Your task to perform on an android device: Check the price on the Dyson V11 Motorhead on Best Buy Image 0: 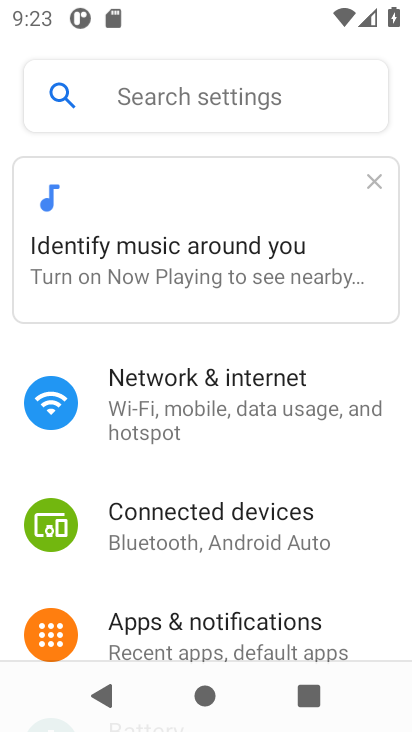
Step 0: click (377, 176)
Your task to perform on an android device: Check the price on the Dyson V11 Motorhead on Best Buy Image 1: 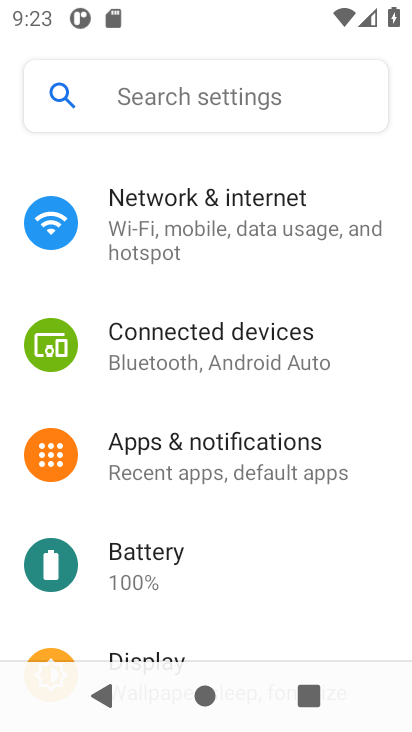
Step 1: click (245, 413)
Your task to perform on an android device: Check the price on the Dyson V11 Motorhead on Best Buy Image 2: 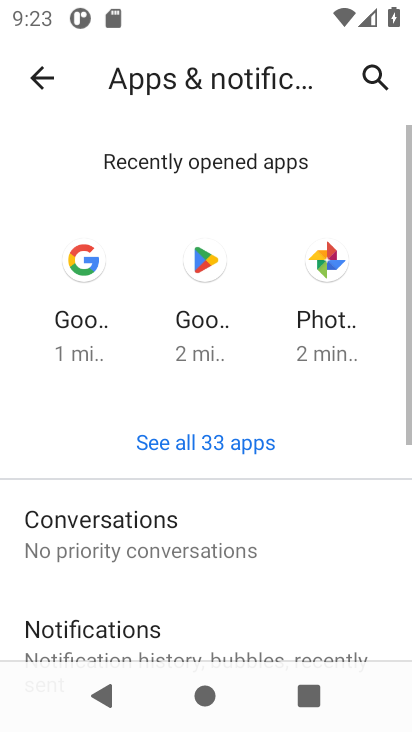
Step 2: task complete